Your task to perform on an android device: toggle location history Image 0: 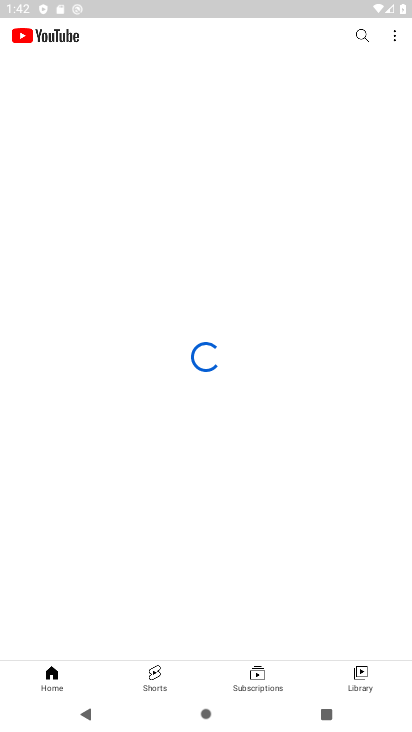
Step 0: press home button
Your task to perform on an android device: toggle location history Image 1: 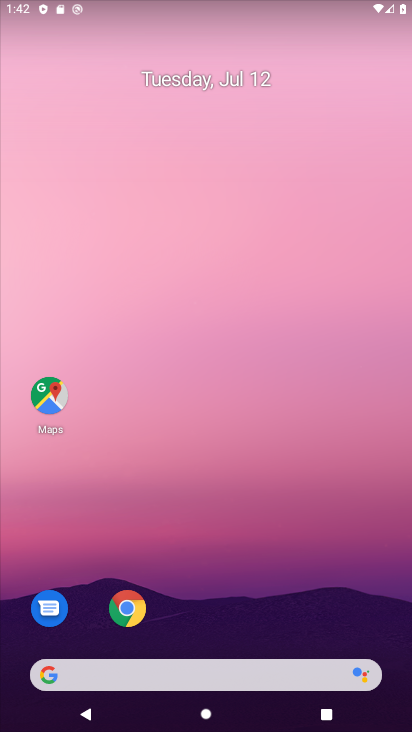
Step 1: click (250, 273)
Your task to perform on an android device: toggle location history Image 2: 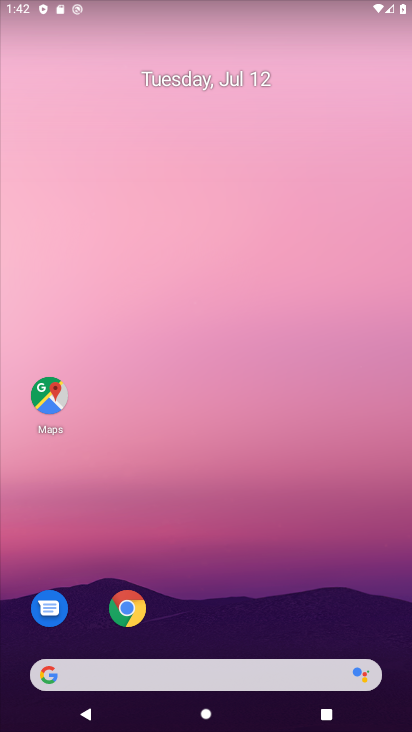
Step 2: drag from (297, 522) to (262, 82)
Your task to perform on an android device: toggle location history Image 3: 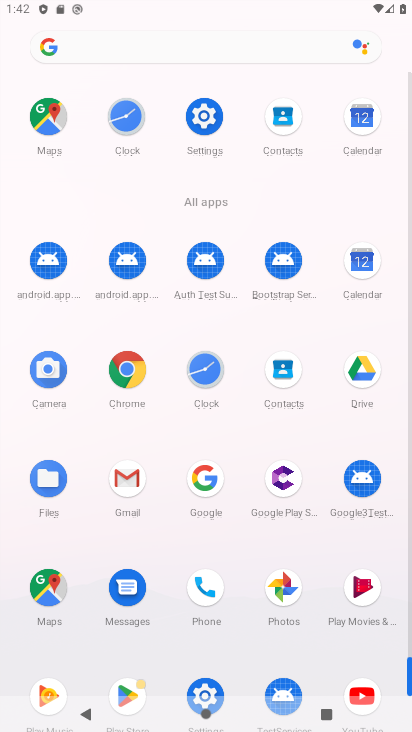
Step 3: click (205, 110)
Your task to perform on an android device: toggle location history Image 4: 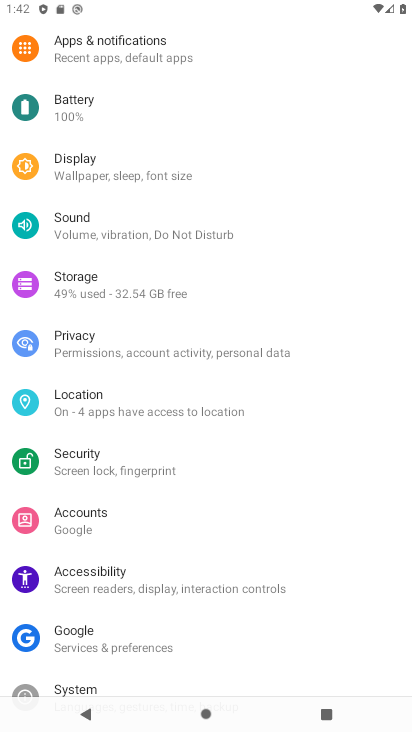
Step 4: click (110, 400)
Your task to perform on an android device: toggle location history Image 5: 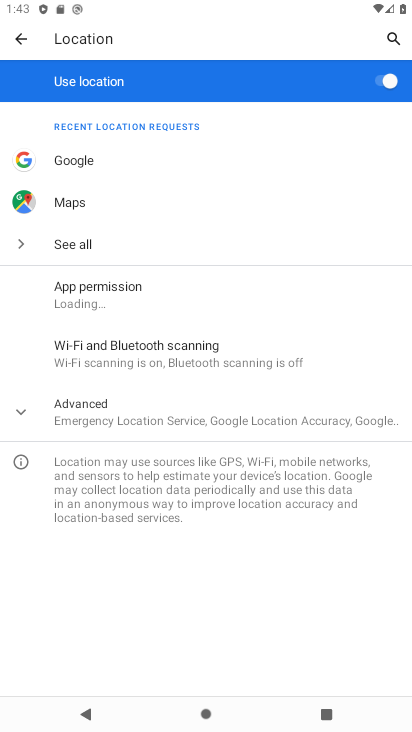
Step 5: click (115, 414)
Your task to perform on an android device: toggle location history Image 6: 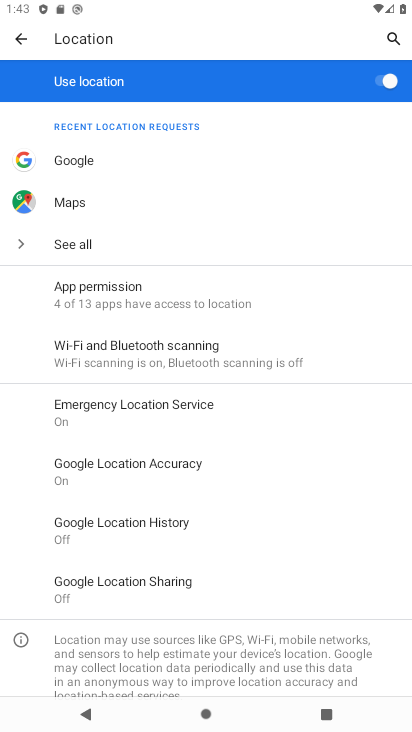
Step 6: click (166, 524)
Your task to perform on an android device: toggle location history Image 7: 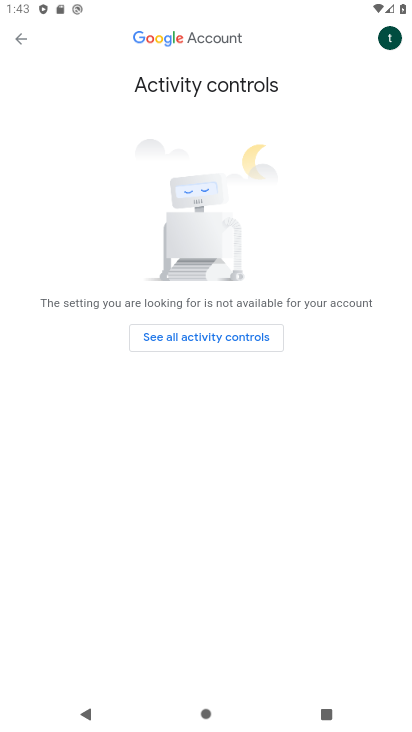
Step 7: task complete